Your task to perform on an android device: toggle wifi Image 0: 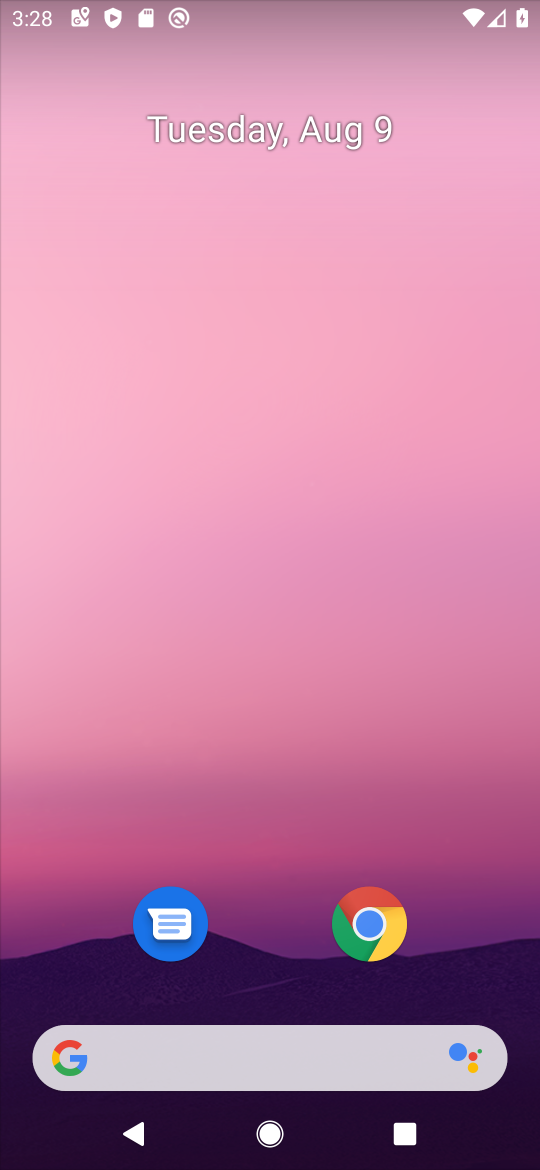
Step 0: drag from (311, 769) to (536, 35)
Your task to perform on an android device: toggle wifi Image 1: 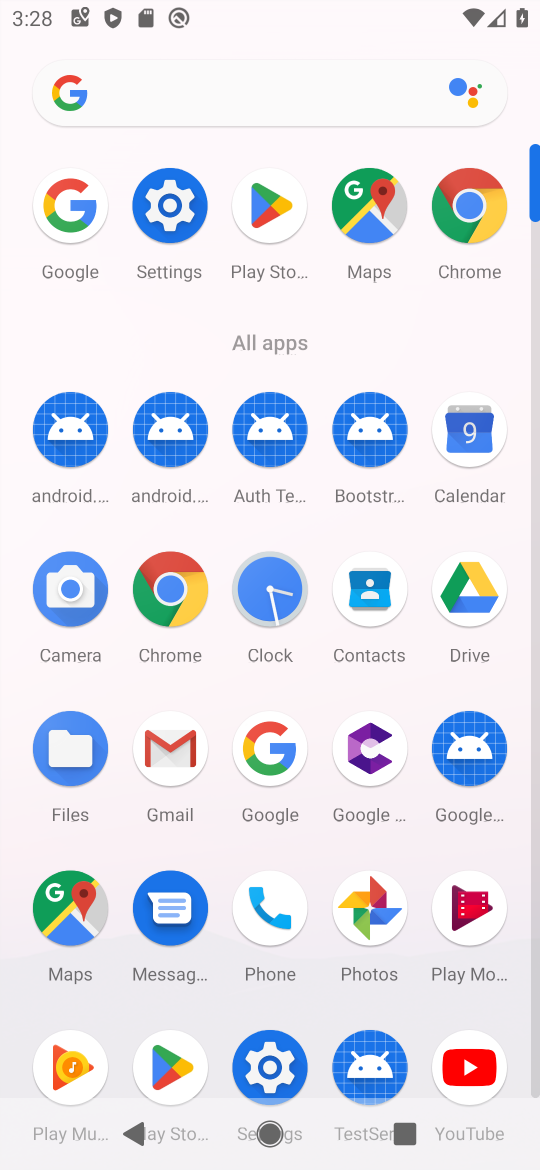
Step 1: click (171, 205)
Your task to perform on an android device: toggle wifi Image 2: 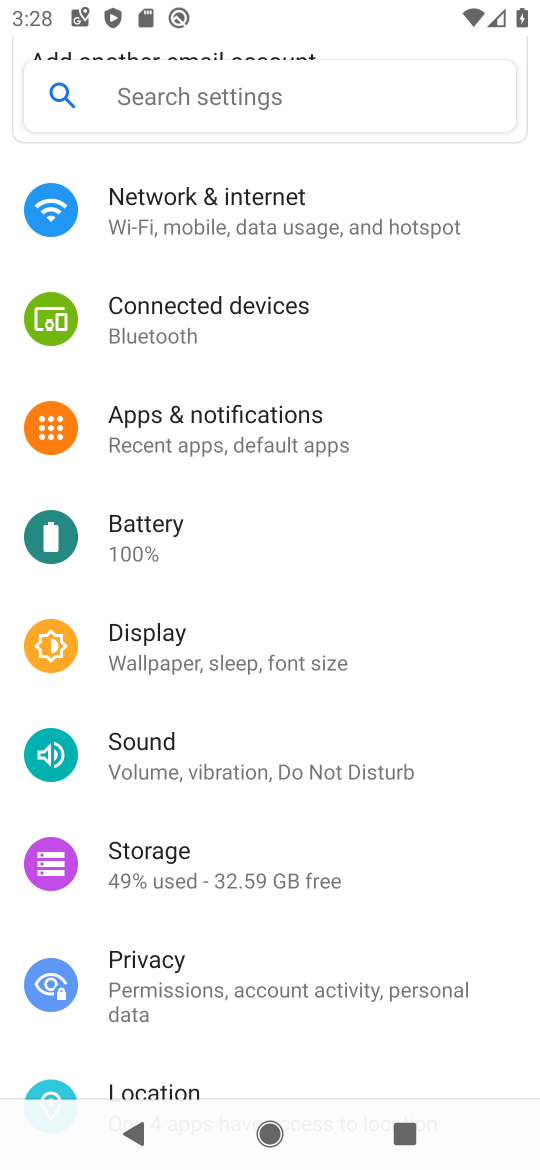
Step 2: click (280, 234)
Your task to perform on an android device: toggle wifi Image 3: 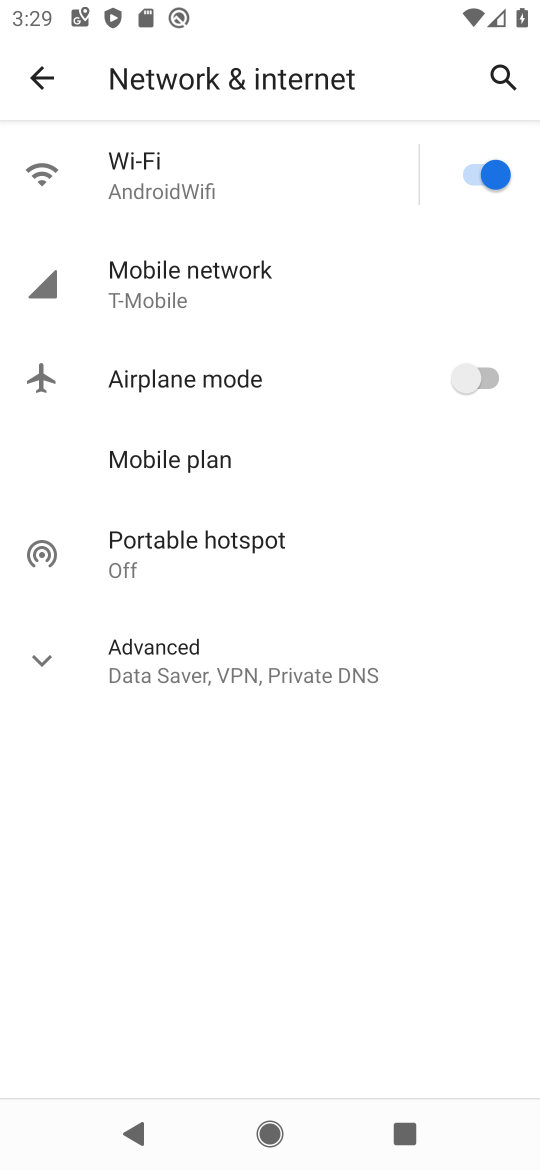
Step 3: click (481, 188)
Your task to perform on an android device: toggle wifi Image 4: 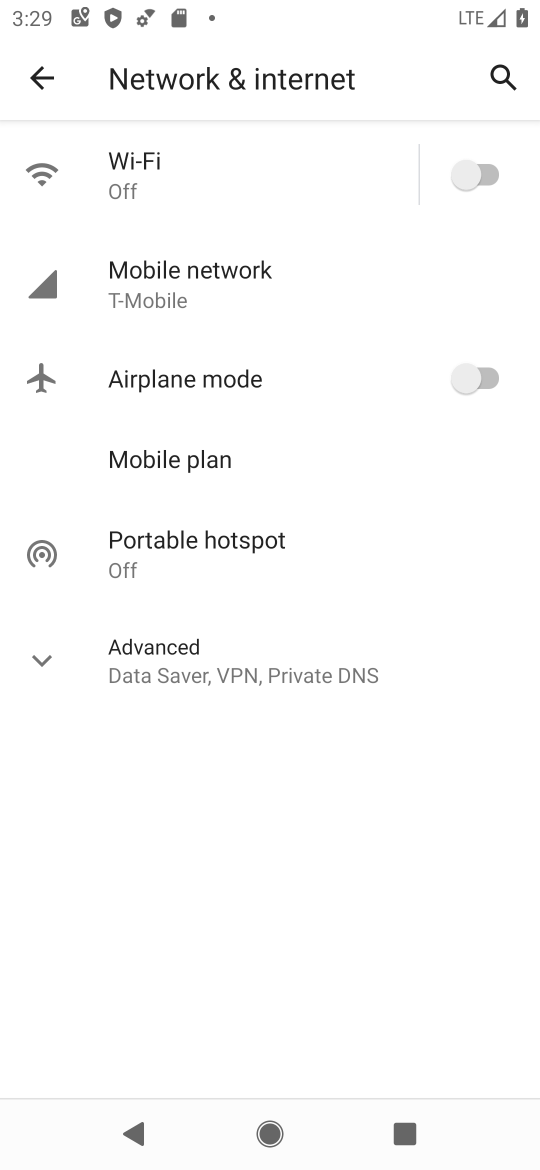
Step 4: task complete